Your task to perform on an android device: turn off sleep mode Image 0: 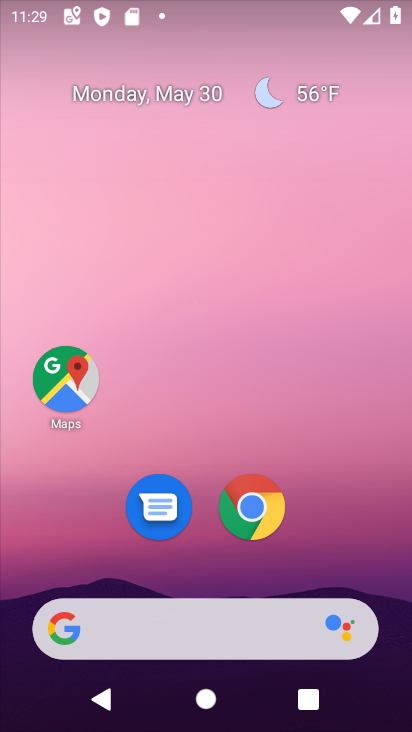
Step 0: drag from (321, 470) to (238, 65)
Your task to perform on an android device: turn off sleep mode Image 1: 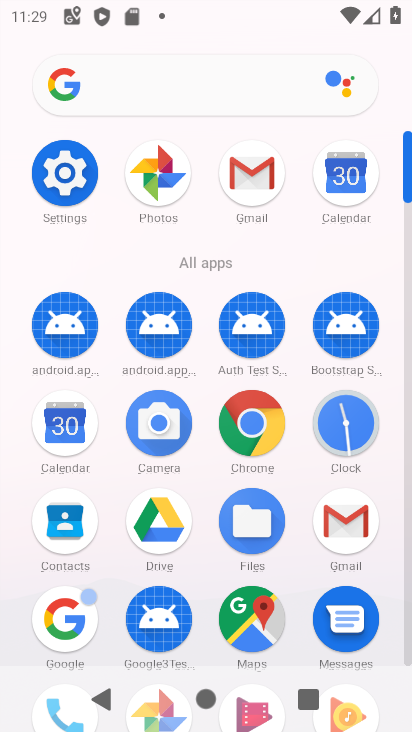
Step 1: click (47, 179)
Your task to perform on an android device: turn off sleep mode Image 2: 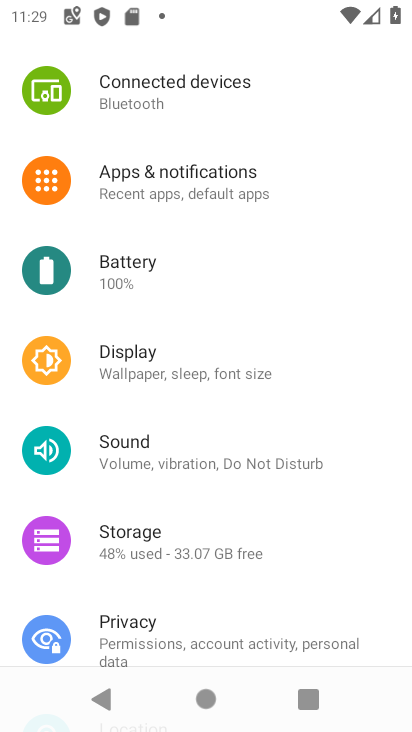
Step 2: click (201, 352)
Your task to perform on an android device: turn off sleep mode Image 3: 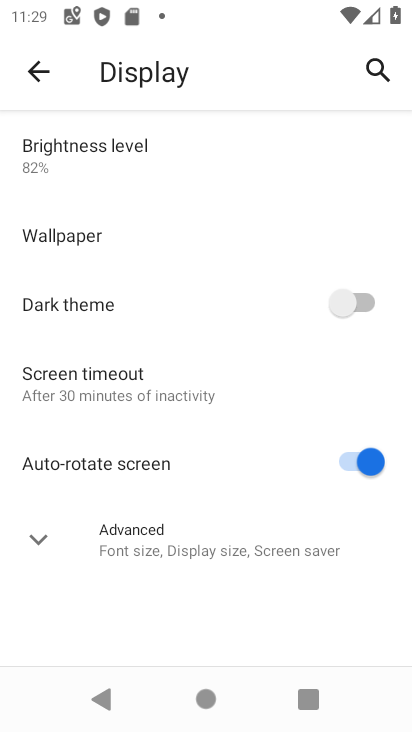
Step 3: task complete